Your task to perform on an android device: Open sound settings Image 0: 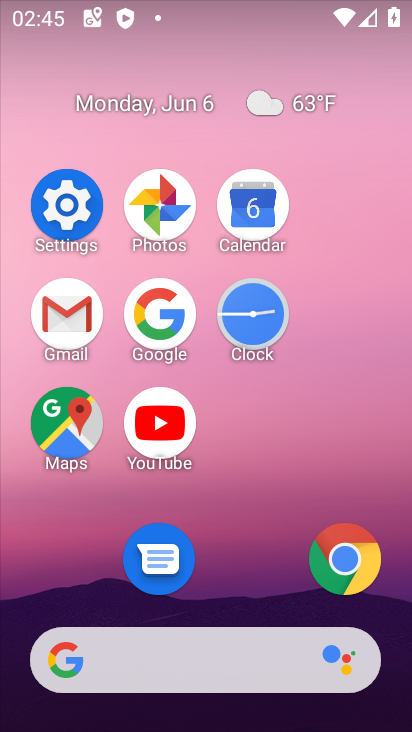
Step 0: click (70, 223)
Your task to perform on an android device: Open sound settings Image 1: 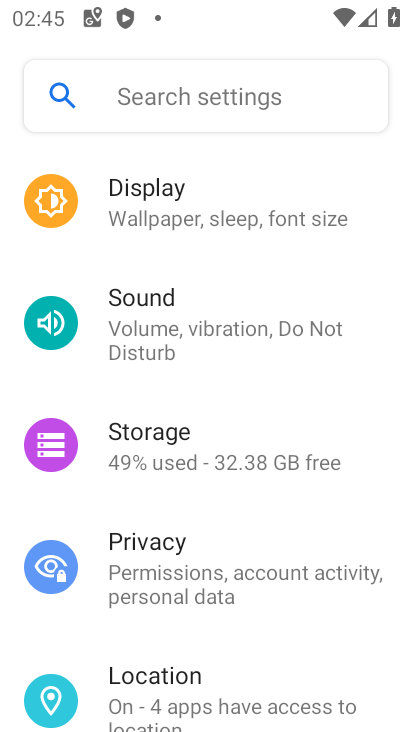
Step 1: click (229, 344)
Your task to perform on an android device: Open sound settings Image 2: 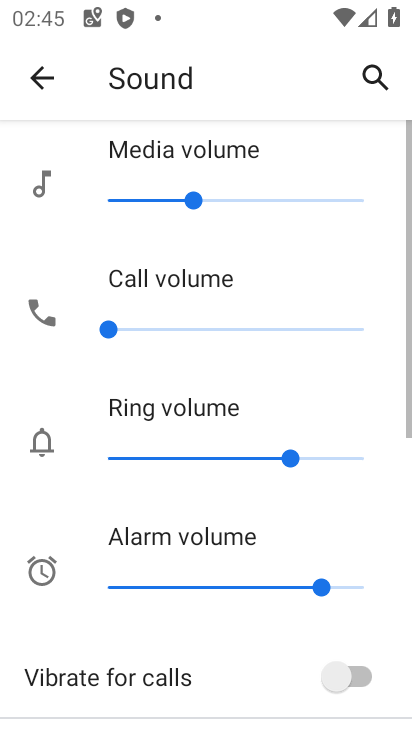
Step 2: task complete